Your task to perform on an android device: Go to location settings Image 0: 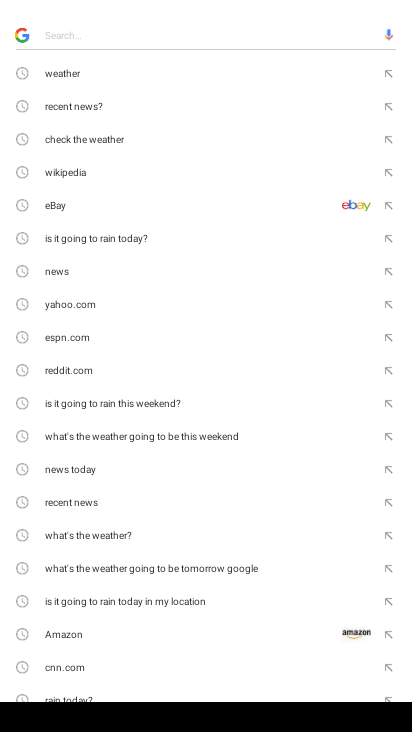
Step 0: press home button
Your task to perform on an android device: Go to location settings Image 1: 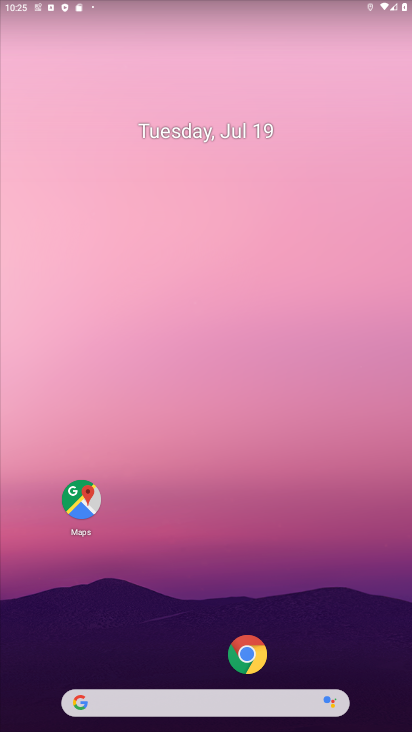
Step 1: drag from (176, 640) to (147, 160)
Your task to perform on an android device: Go to location settings Image 2: 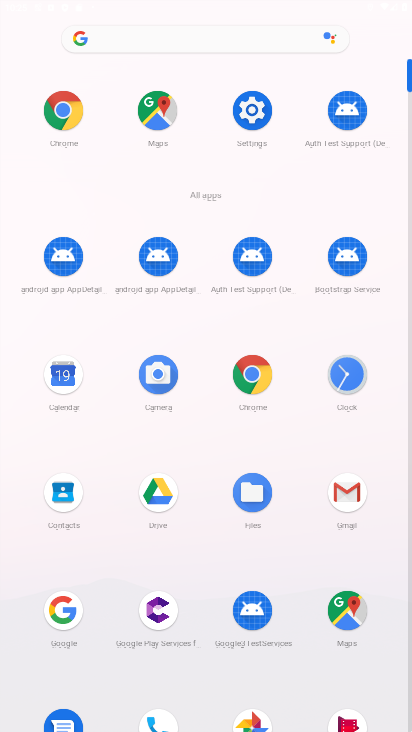
Step 2: click (261, 113)
Your task to perform on an android device: Go to location settings Image 3: 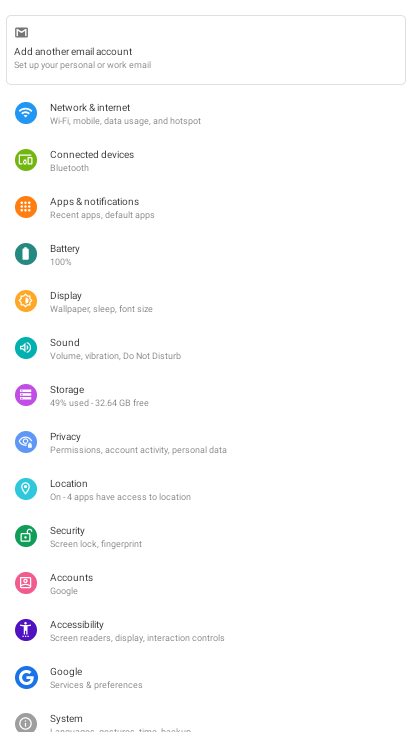
Step 3: click (72, 487)
Your task to perform on an android device: Go to location settings Image 4: 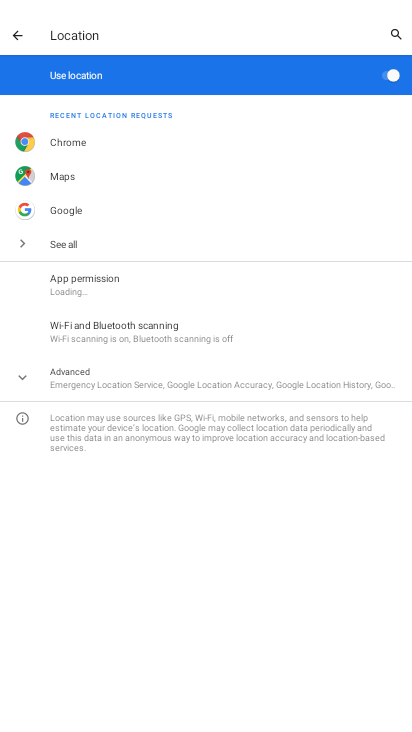
Step 4: task complete